Your task to perform on an android device: find snoozed emails in the gmail app Image 0: 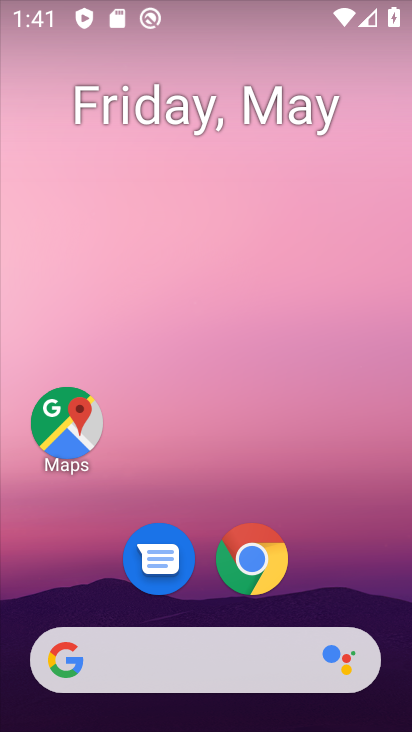
Step 0: drag from (310, 556) to (342, 306)
Your task to perform on an android device: find snoozed emails in the gmail app Image 1: 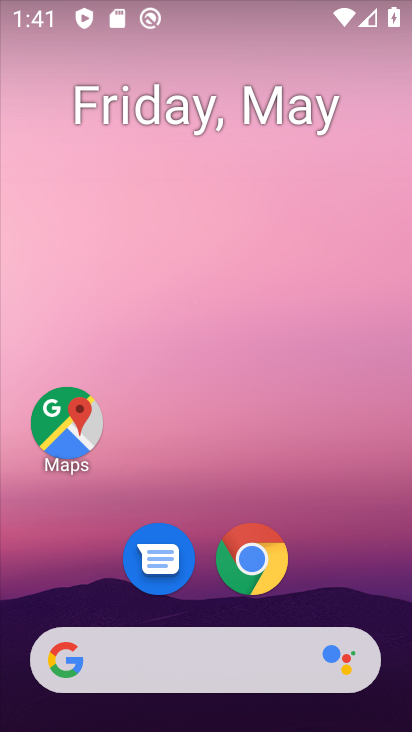
Step 1: drag from (338, 592) to (386, 199)
Your task to perform on an android device: find snoozed emails in the gmail app Image 2: 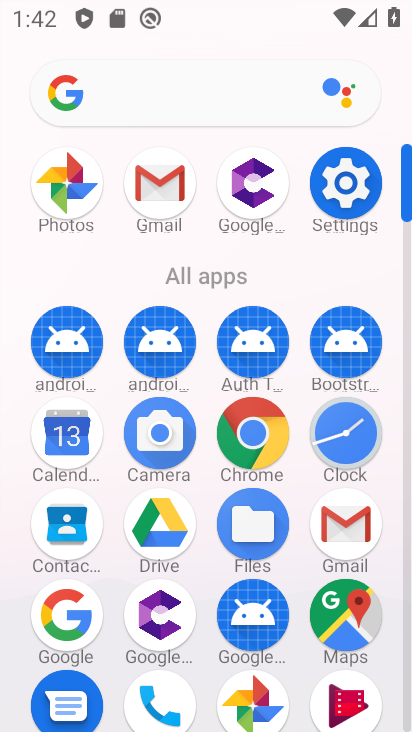
Step 2: click (325, 541)
Your task to perform on an android device: find snoozed emails in the gmail app Image 3: 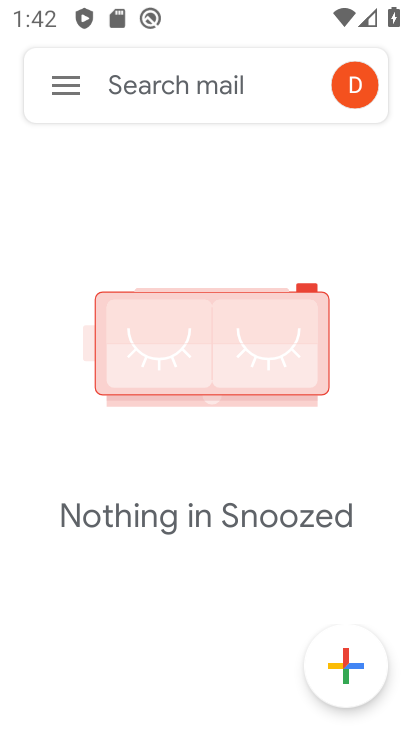
Step 3: click (65, 92)
Your task to perform on an android device: find snoozed emails in the gmail app Image 4: 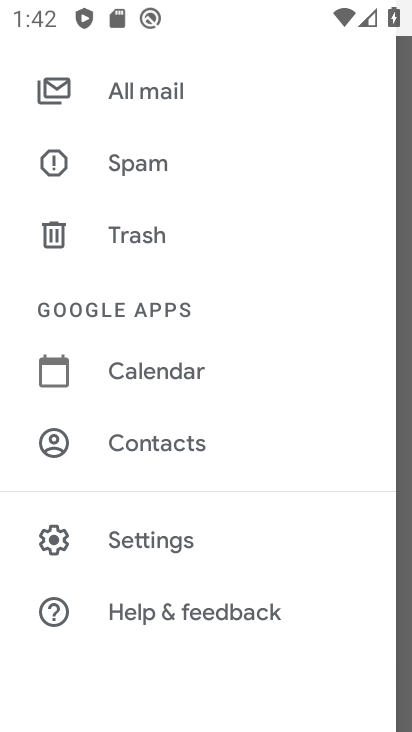
Step 4: drag from (215, 172) to (187, 697)
Your task to perform on an android device: find snoozed emails in the gmail app Image 5: 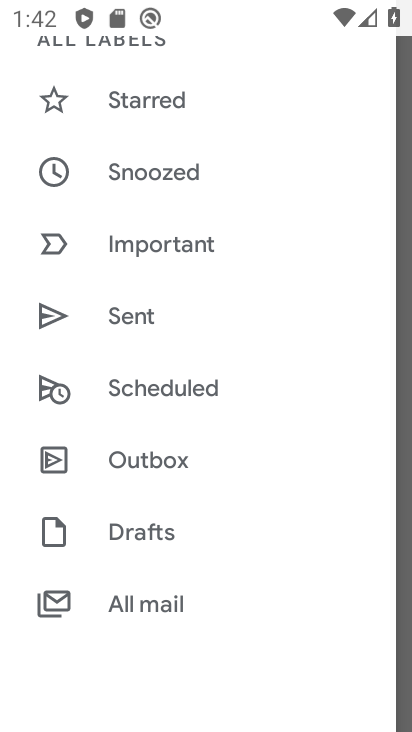
Step 5: click (177, 170)
Your task to perform on an android device: find snoozed emails in the gmail app Image 6: 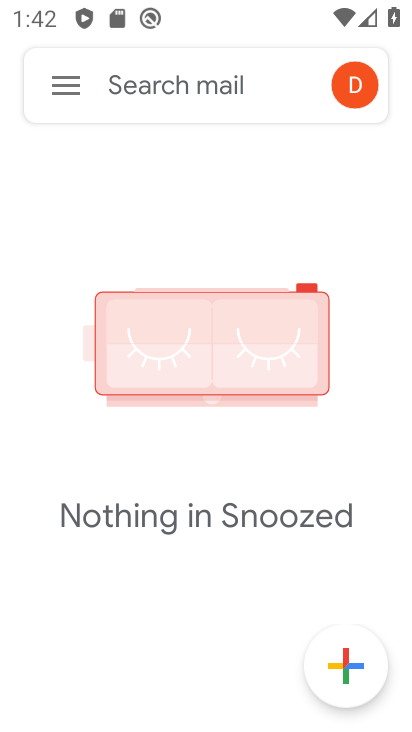
Step 6: task complete